Your task to perform on an android device: turn pop-ups off in chrome Image 0: 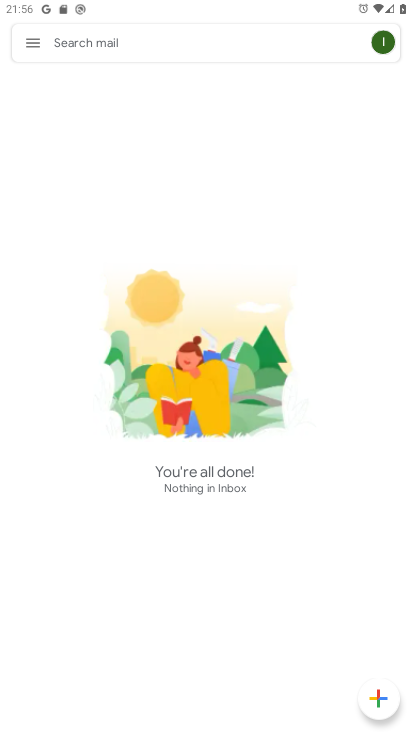
Step 0: press home button
Your task to perform on an android device: turn pop-ups off in chrome Image 1: 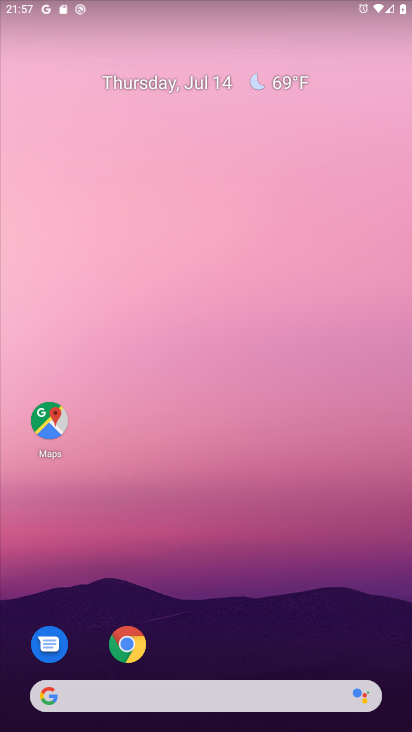
Step 1: click (137, 641)
Your task to perform on an android device: turn pop-ups off in chrome Image 2: 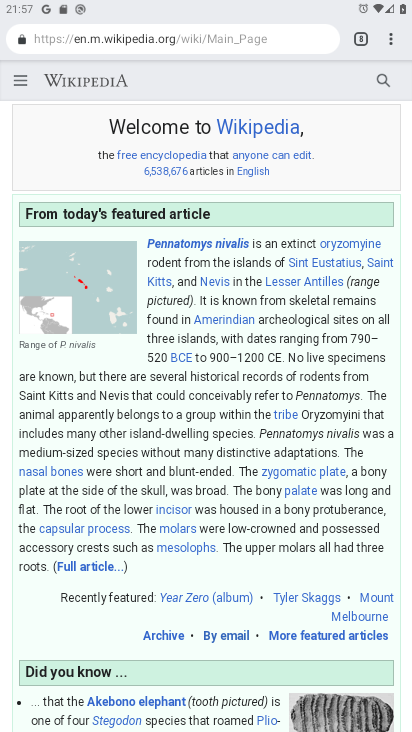
Step 2: click (386, 44)
Your task to perform on an android device: turn pop-ups off in chrome Image 3: 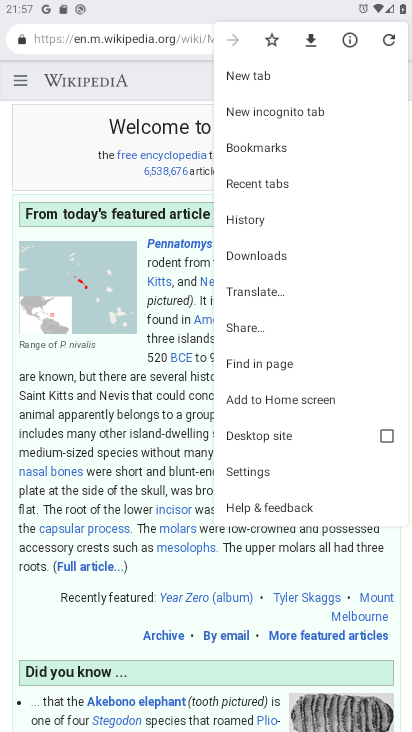
Step 3: click (274, 480)
Your task to perform on an android device: turn pop-ups off in chrome Image 4: 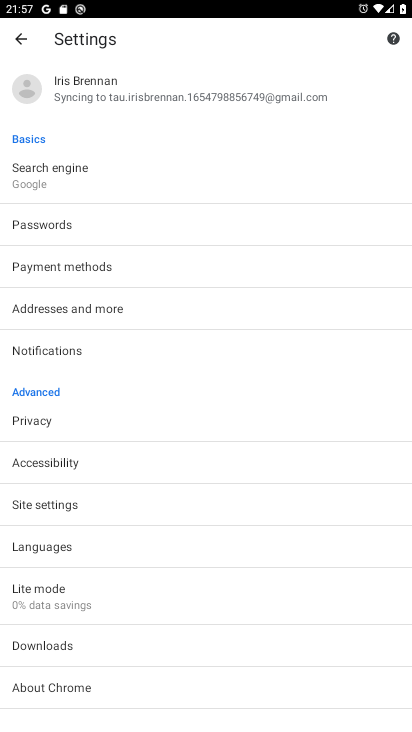
Step 4: drag from (144, 641) to (261, 23)
Your task to perform on an android device: turn pop-ups off in chrome Image 5: 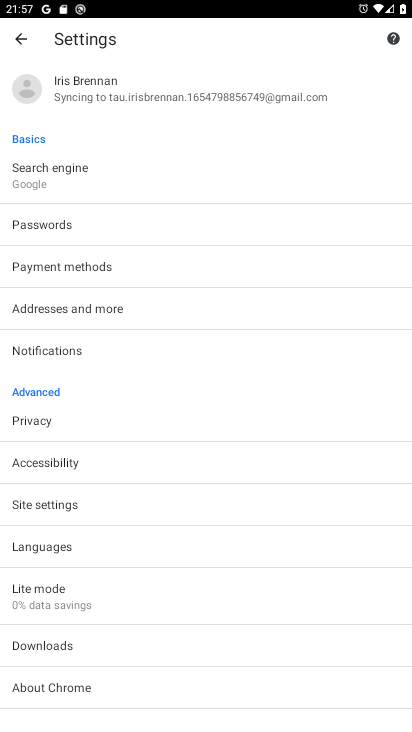
Step 5: click (127, 506)
Your task to perform on an android device: turn pop-ups off in chrome Image 6: 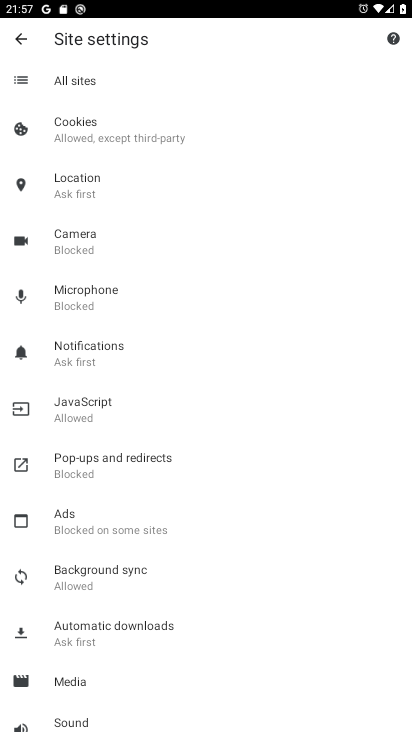
Step 6: click (158, 477)
Your task to perform on an android device: turn pop-ups off in chrome Image 7: 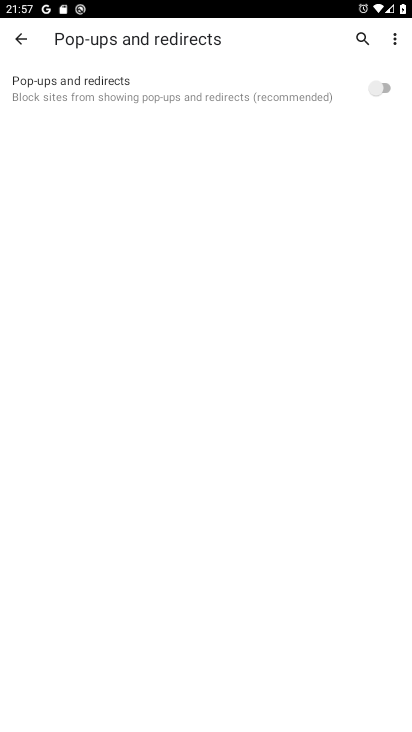
Step 7: task complete